Your task to perform on an android device: change keyboard looks Image 0: 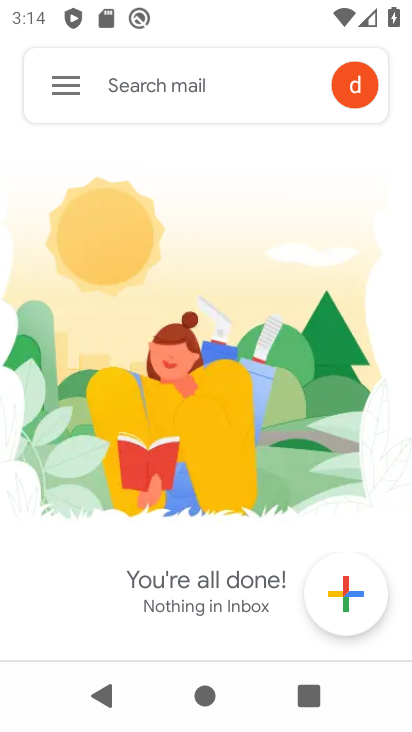
Step 0: press back button
Your task to perform on an android device: change keyboard looks Image 1: 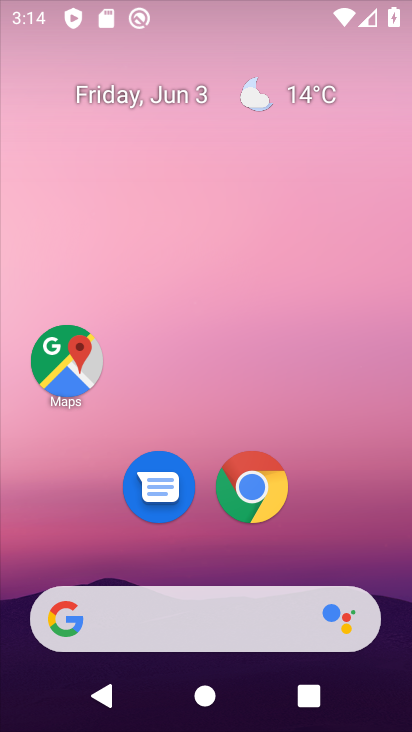
Step 1: drag from (165, 547) to (219, 20)
Your task to perform on an android device: change keyboard looks Image 2: 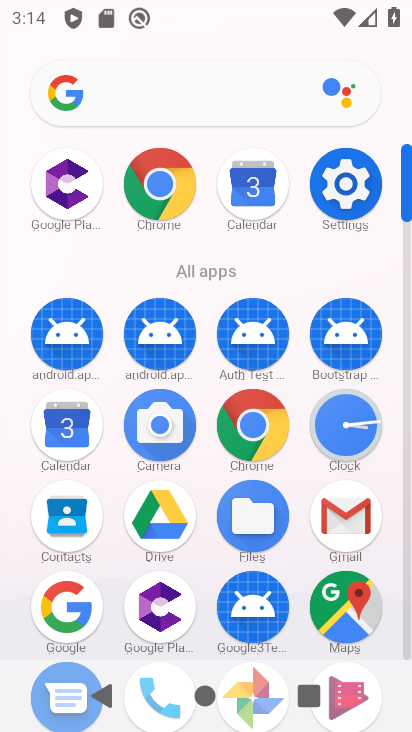
Step 2: click (342, 174)
Your task to perform on an android device: change keyboard looks Image 3: 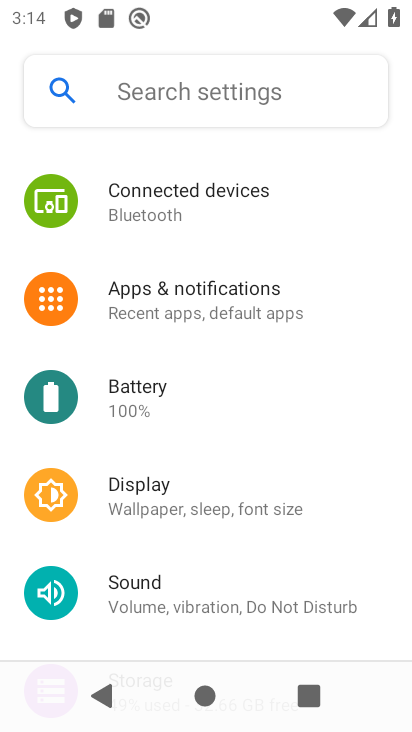
Step 3: click (200, 70)
Your task to perform on an android device: change keyboard looks Image 4: 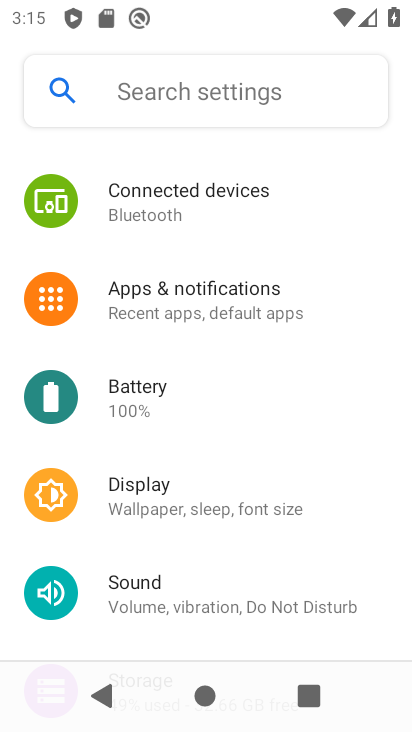
Step 4: drag from (235, 564) to (287, 87)
Your task to perform on an android device: change keyboard looks Image 5: 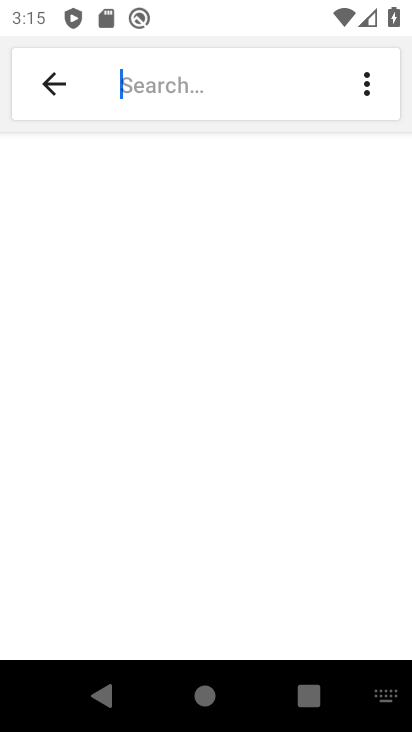
Step 5: press back button
Your task to perform on an android device: change keyboard looks Image 6: 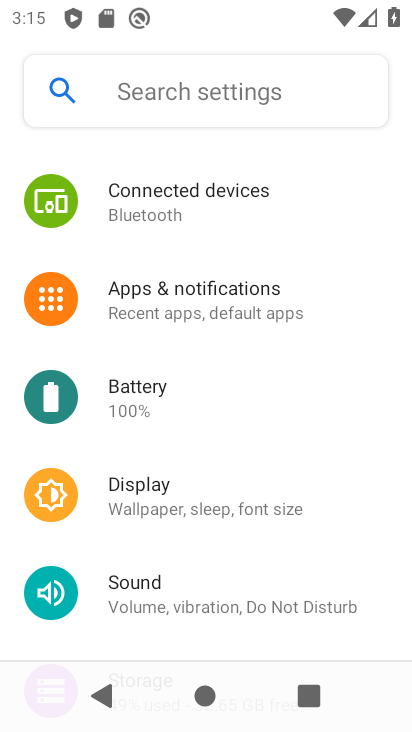
Step 6: drag from (243, 550) to (308, 53)
Your task to perform on an android device: change keyboard looks Image 7: 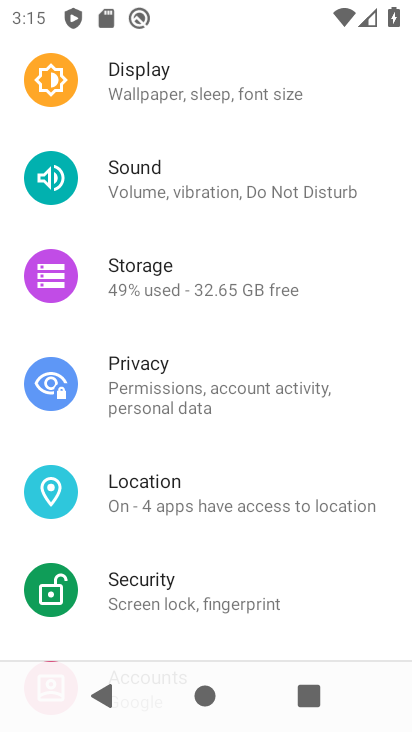
Step 7: drag from (309, 483) to (304, 30)
Your task to perform on an android device: change keyboard looks Image 8: 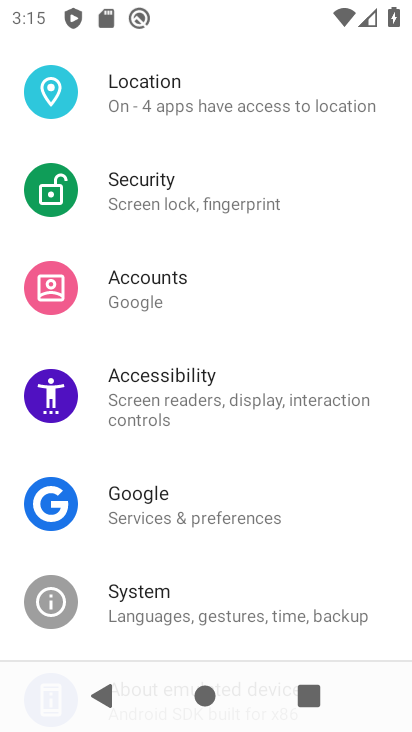
Step 8: drag from (155, 605) to (221, 50)
Your task to perform on an android device: change keyboard looks Image 9: 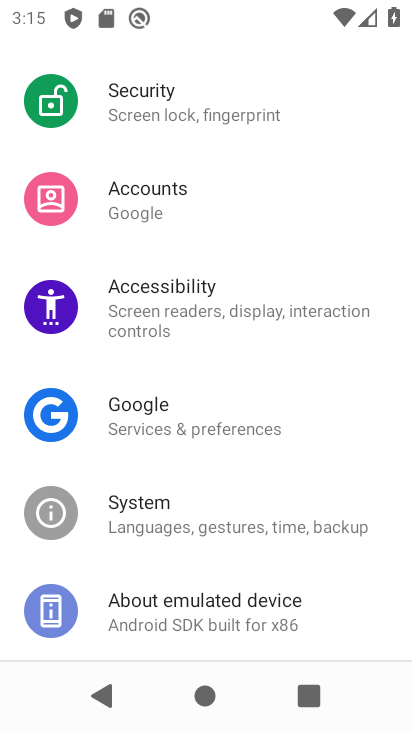
Step 9: click (128, 511)
Your task to perform on an android device: change keyboard looks Image 10: 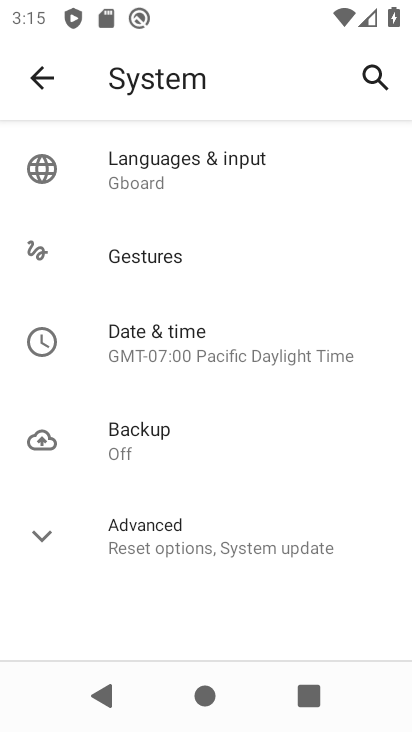
Step 10: click (187, 171)
Your task to perform on an android device: change keyboard looks Image 11: 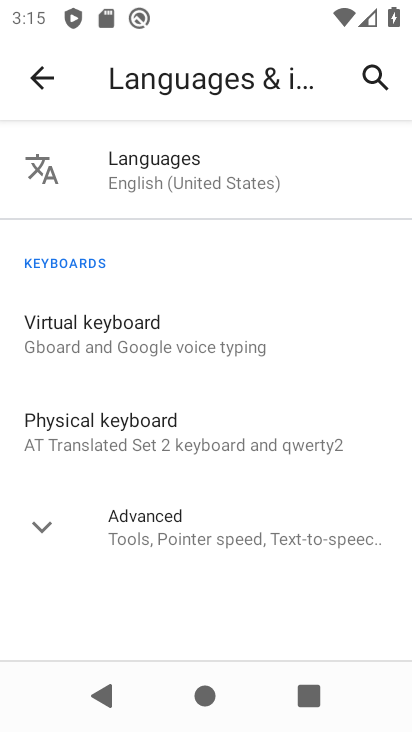
Step 11: click (110, 328)
Your task to perform on an android device: change keyboard looks Image 12: 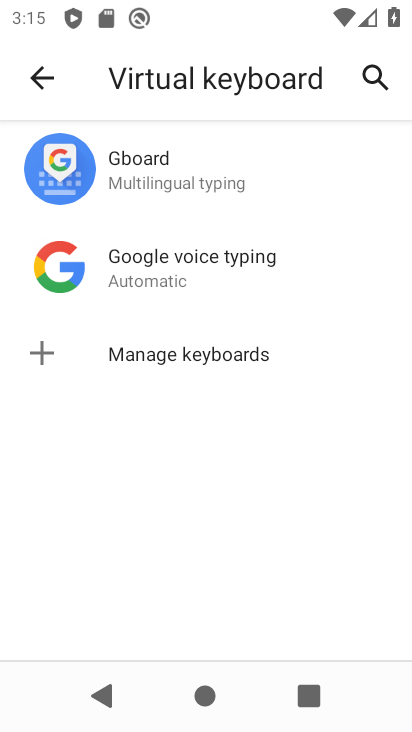
Step 12: click (194, 174)
Your task to perform on an android device: change keyboard looks Image 13: 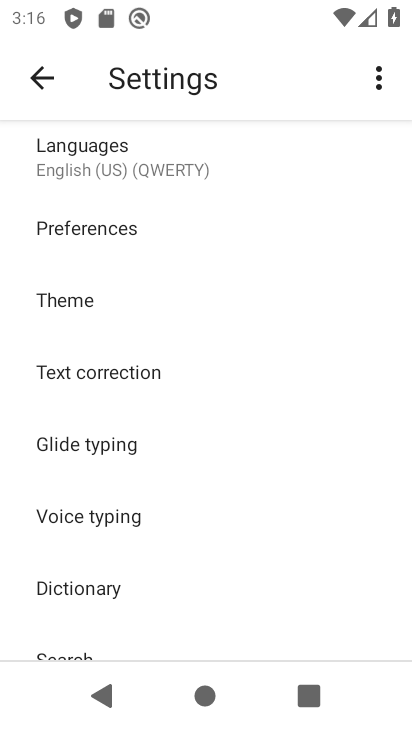
Step 13: click (65, 314)
Your task to perform on an android device: change keyboard looks Image 14: 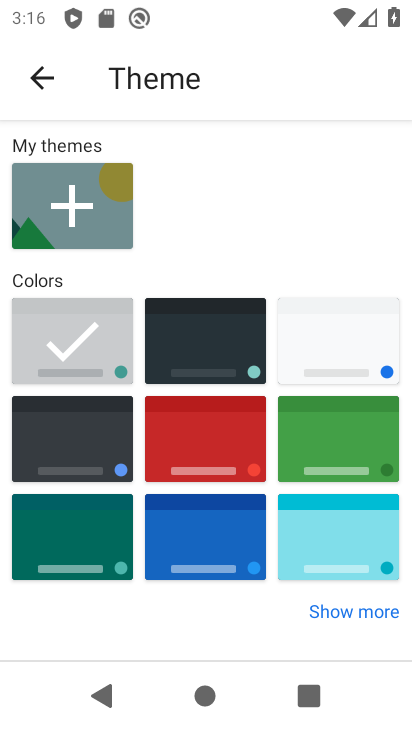
Step 14: click (213, 431)
Your task to perform on an android device: change keyboard looks Image 15: 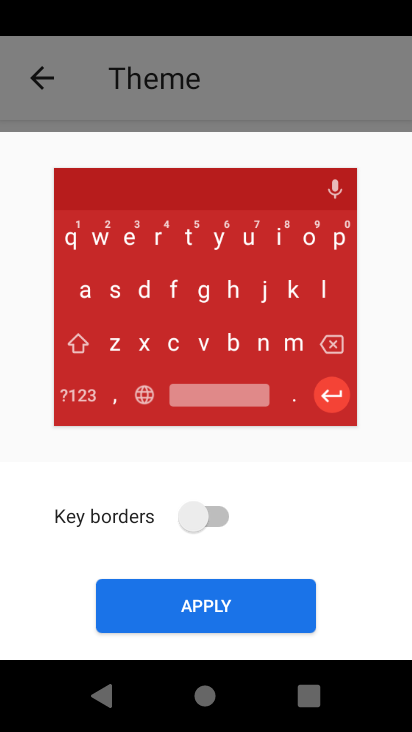
Step 15: click (270, 589)
Your task to perform on an android device: change keyboard looks Image 16: 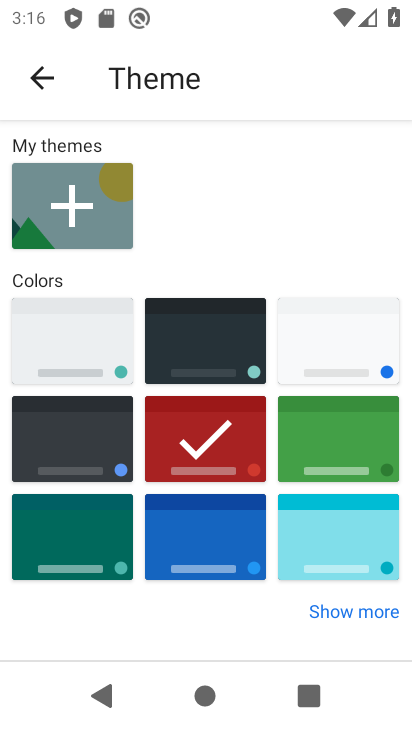
Step 16: task complete